Your task to perform on an android device: turn on notifications settings in the gmail app Image 0: 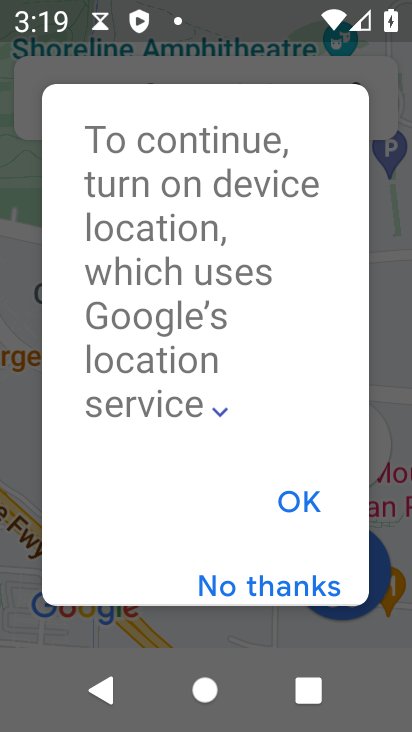
Step 0: press home button
Your task to perform on an android device: turn on notifications settings in the gmail app Image 1: 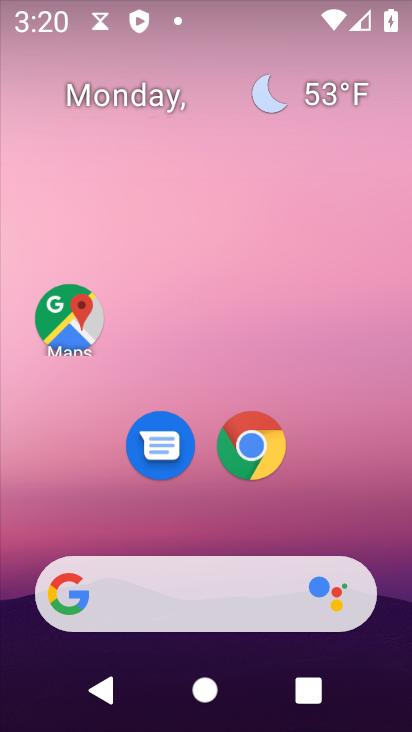
Step 1: drag from (196, 516) to (255, 120)
Your task to perform on an android device: turn on notifications settings in the gmail app Image 2: 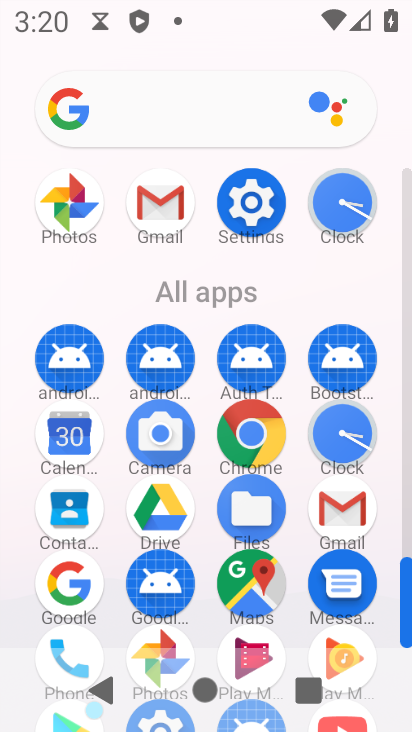
Step 2: click (334, 515)
Your task to perform on an android device: turn on notifications settings in the gmail app Image 3: 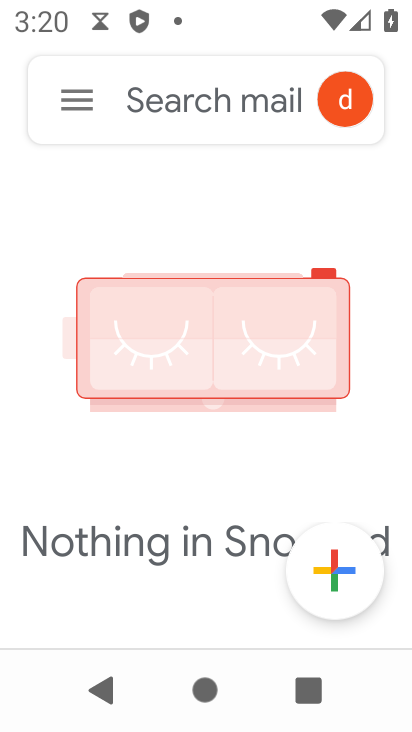
Step 3: click (77, 102)
Your task to perform on an android device: turn on notifications settings in the gmail app Image 4: 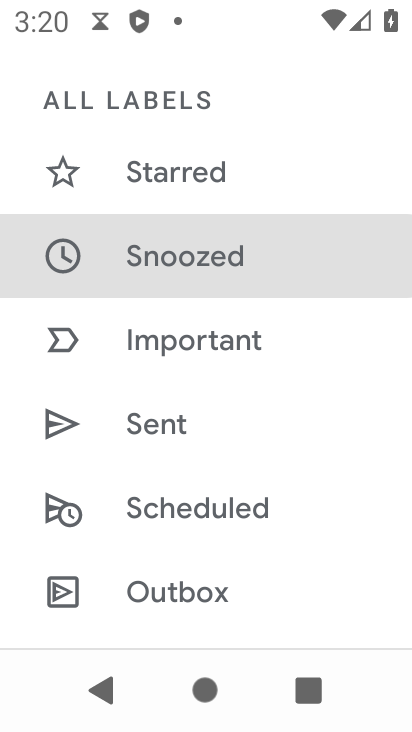
Step 4: drag from (152, 525) to (218, 87)
Your task to perform on an android device: turn on notifications settings in the gmail app Image 5: 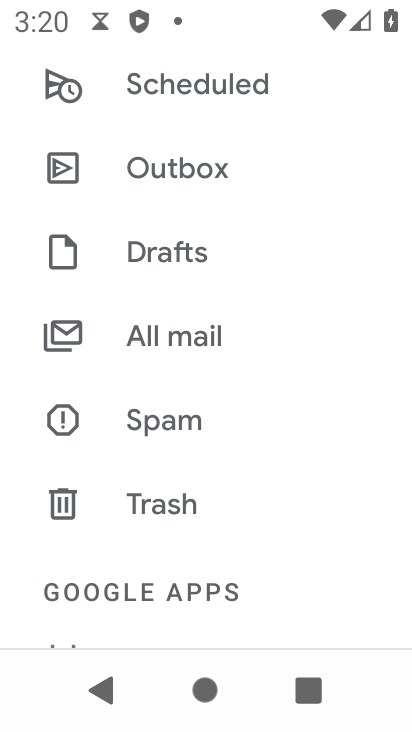
Step 5: drag from (150, 530) to (222, 127)
Your task to perform on an android device: turn on notifications settings in the gmail app Image 6: 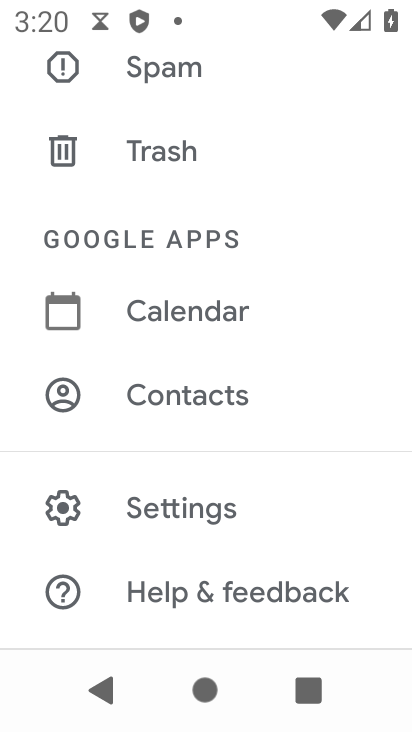
Step 6: drag from (220, 556) to (264, 234)
Your task to perform on an android device: turn on notifications settings in the gmail app Image 7: 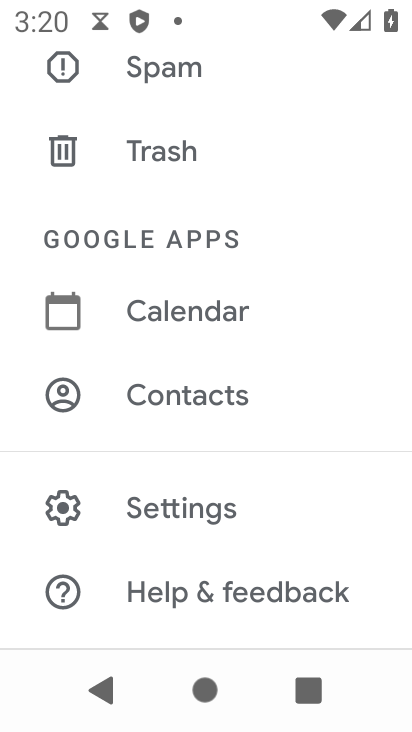
Step 7: click (212, 519)
Your task to perform on an android device: turn on notifications settings in the gmail app Image 8: 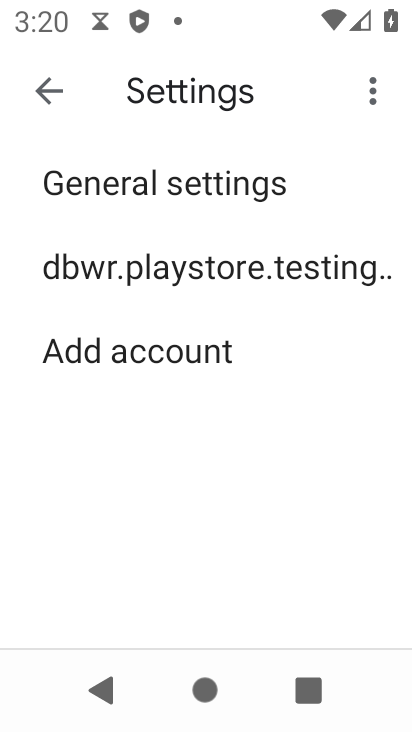
Step 8: click (190, 196)
Your task to perform on an android device: turn on notifications settings in the gmail app Image 9: 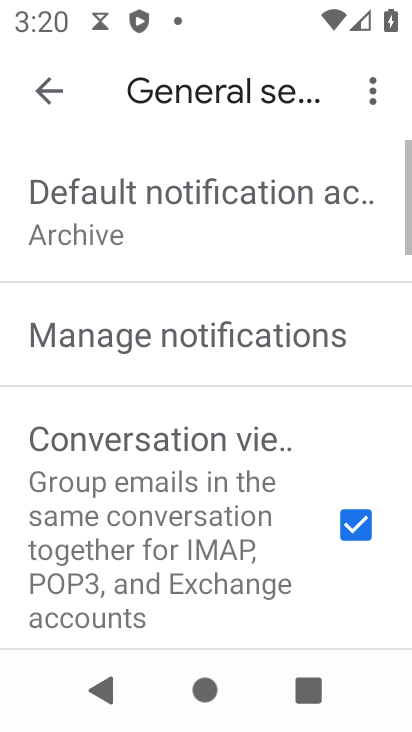
Step 9: click (160, 343)
Your task to perform on an android device: turn on notifications settings in the gmail app Image 10: 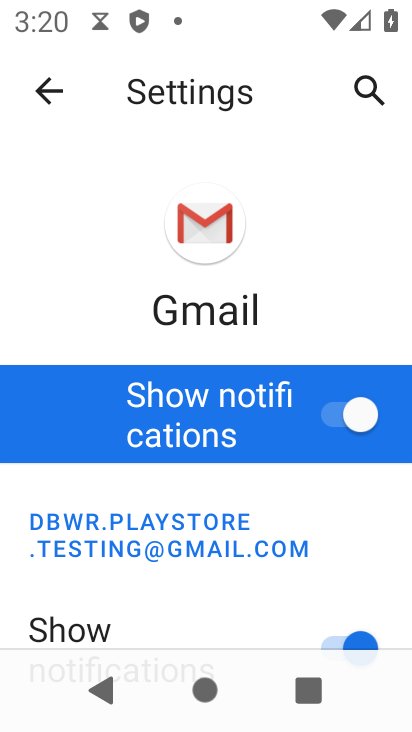
Step 10: task complete